Your task to perform on an android device: Go to Google Image 0: 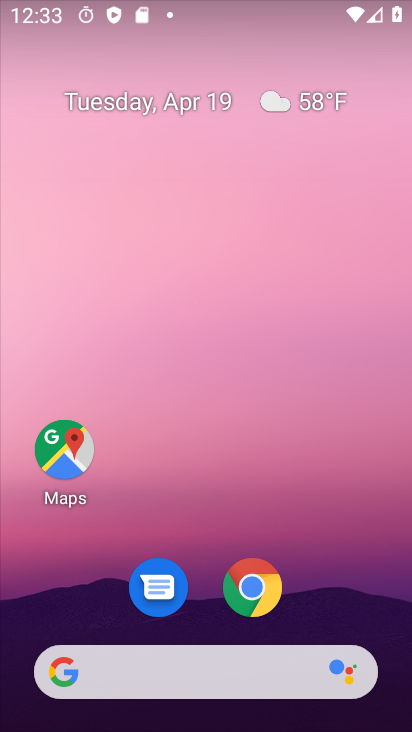
Step 0: drag from (375, 570) to (365, 120)
Your task to perform on an android device: Go to Google Image 1: 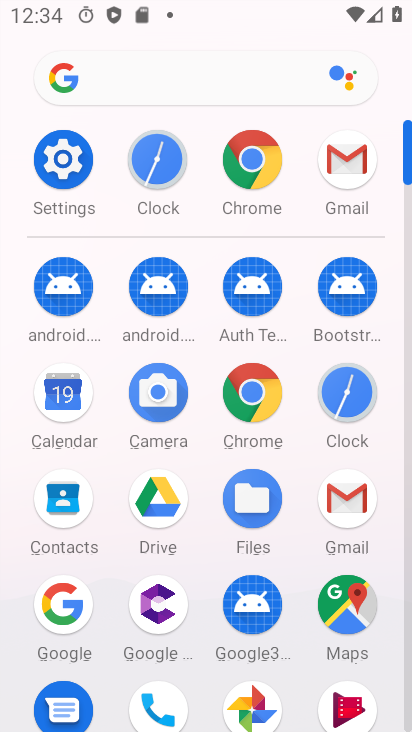
Step 1: click (72, 616)
Your task to perform on an android device: Go to Google Image 2: 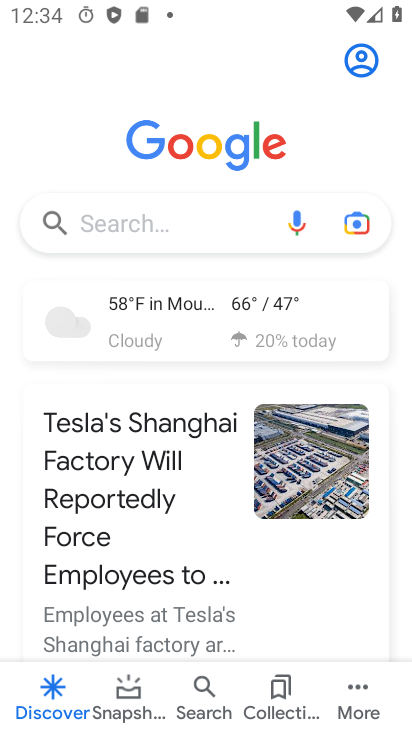
Step 2: task complete